Your task to perform on an android device: change timer sound Image 0: 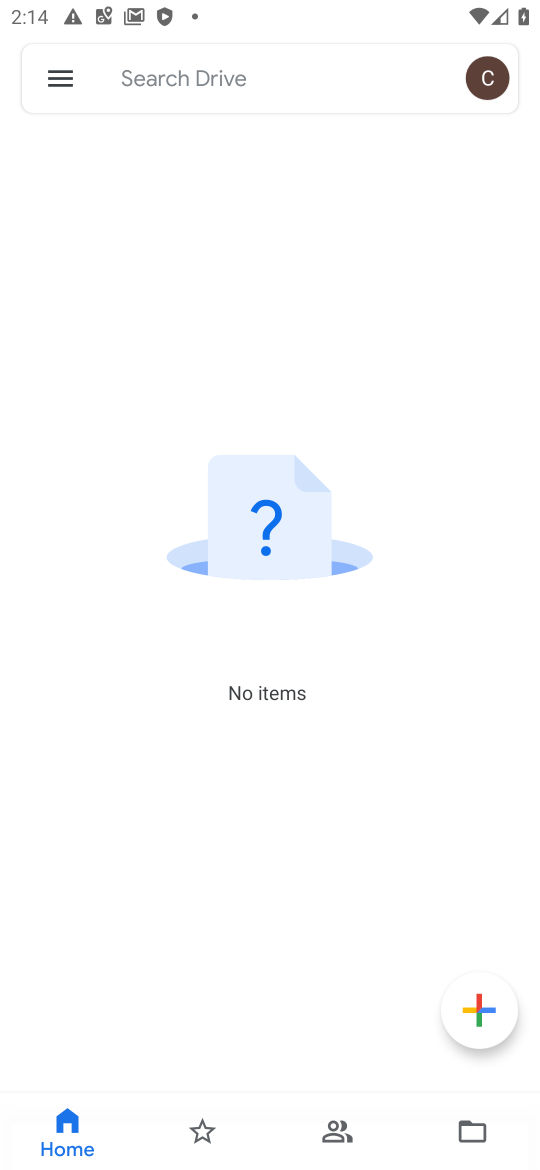
Step 0: press home button
Your task to perform on an android device: change timer sound Image 1: 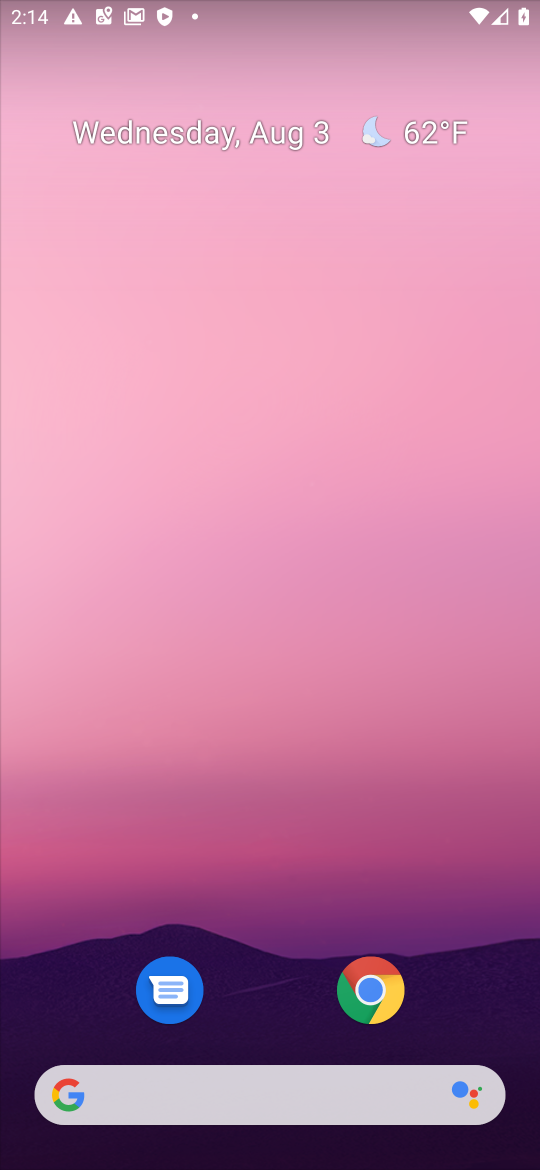
Step 1: drag from (210, 664) to (210, 492)
Your task to perform on an android device: change timer sound Image 2: 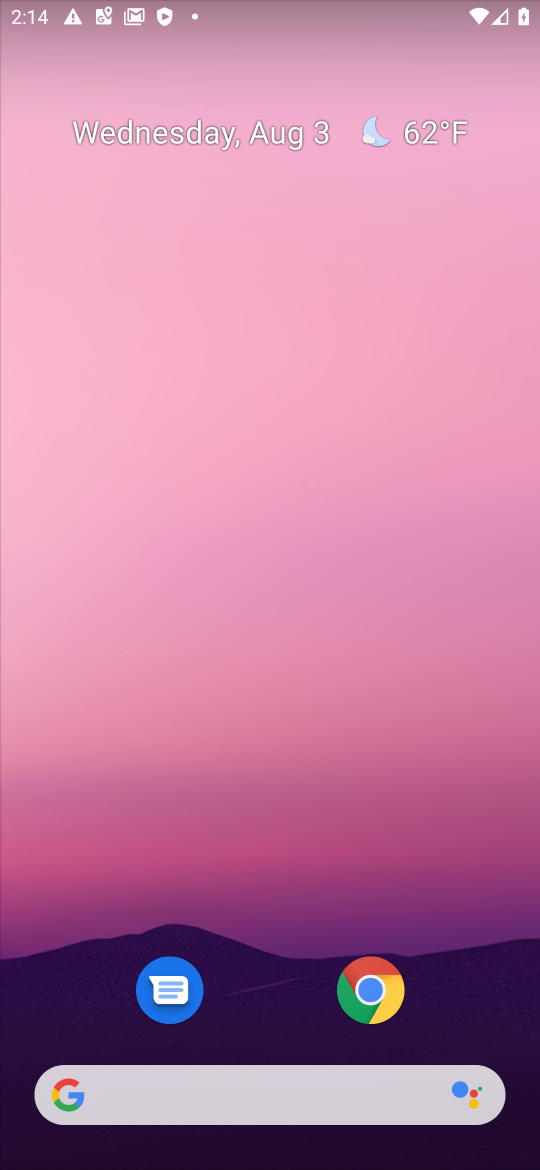
Step 2: drag from (296, 1063) to (297, 224)
Your task to perform on an android device: change timer sound Image 3: 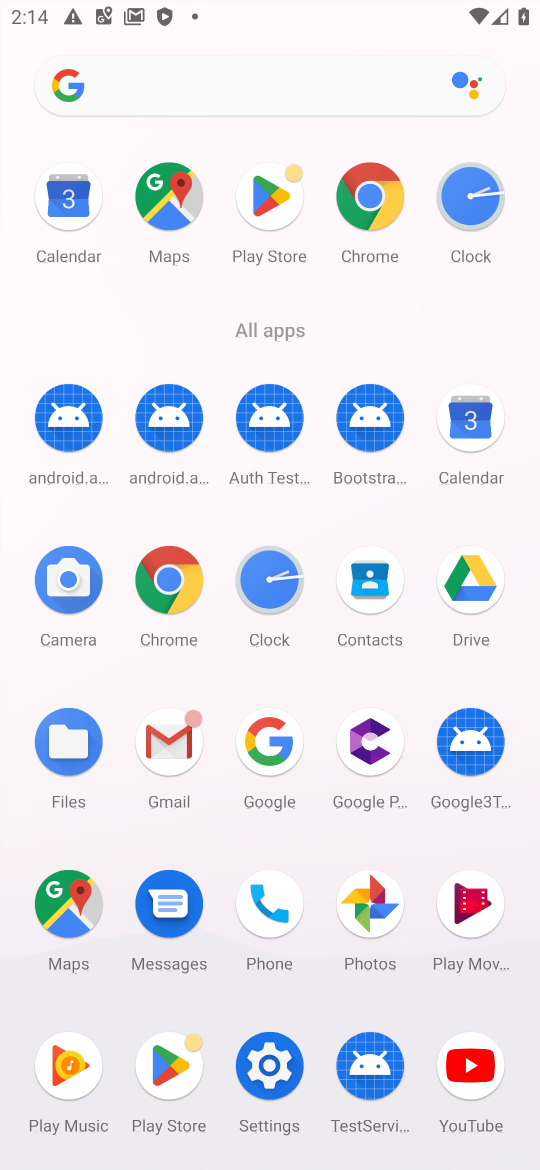
Step 3: click (471, 186)
Your task to perform on an android device: change timer sound Image 4: 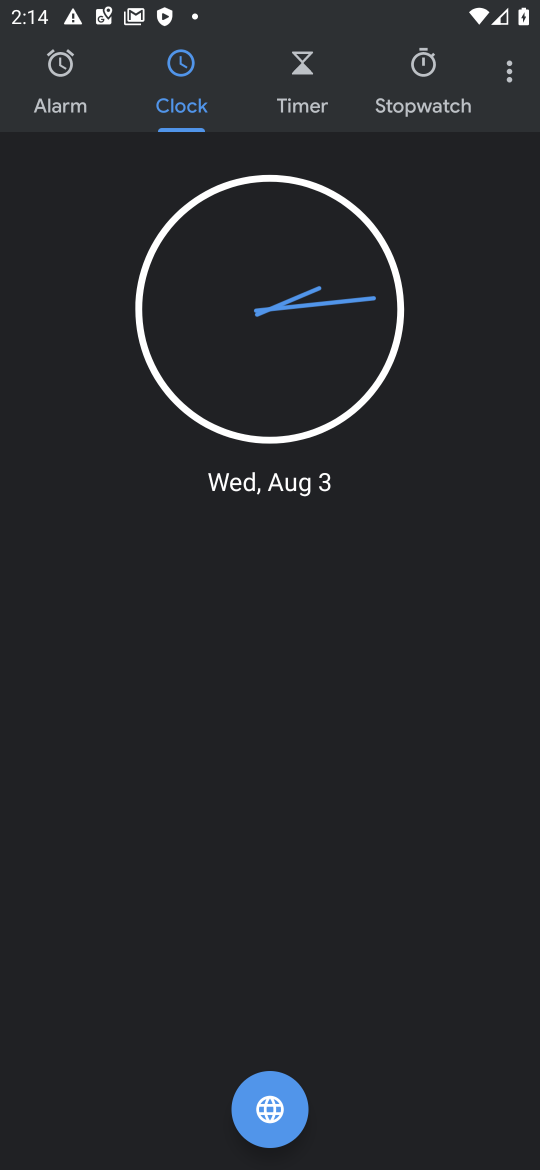
Step 4: click (503, 76)
Your task to perform on an android device: change timer sound Image 5: 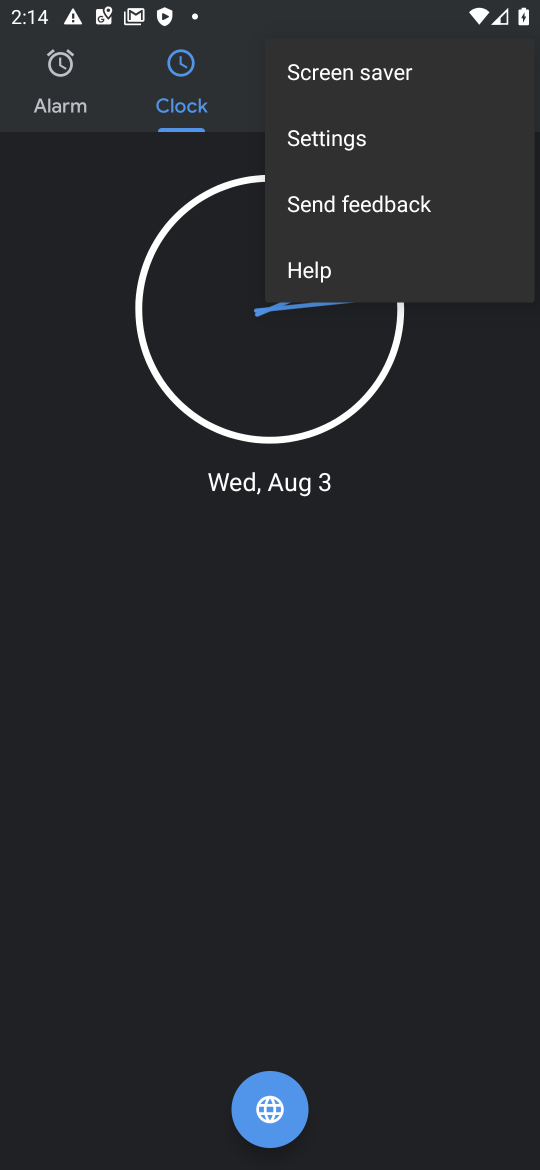
Step 5: click (328, 150)
Your task to perform on an android device: change timer sound Image 6: 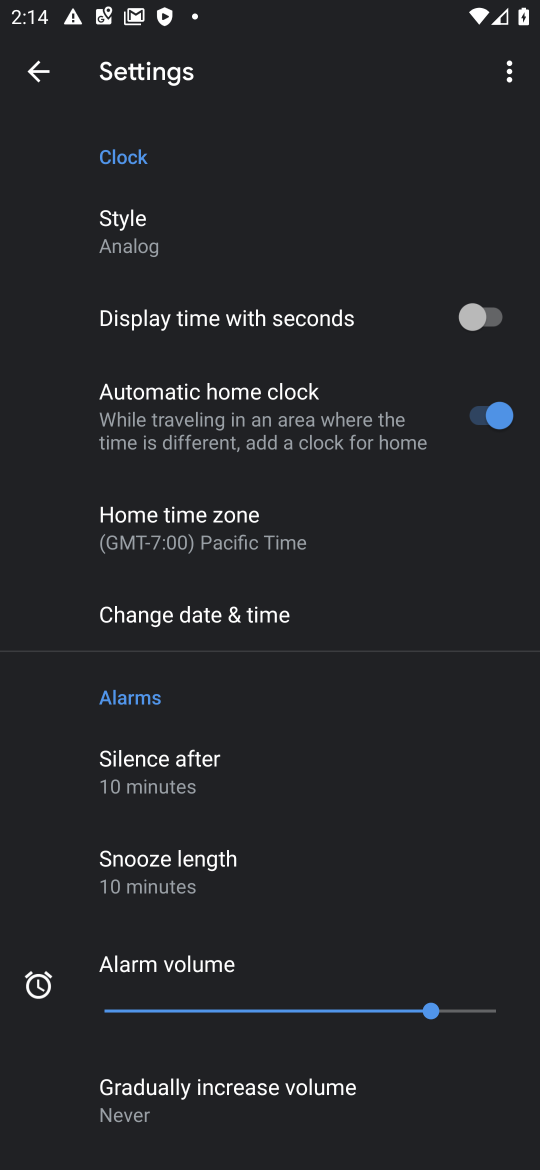
Step 6: drag from (209, 1052) to (191, 560)
Your task to perform on an android device: change timer sound Image 7: 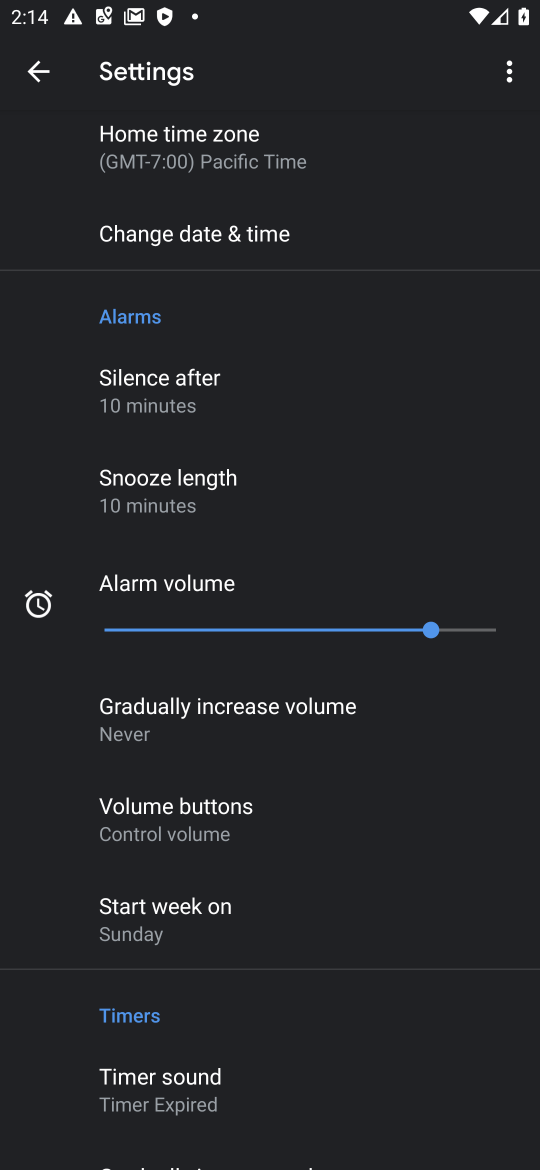
Step 7: drag from (179, 1080) to (174, 639)
Your task to perform on an android device: change timer sound Image 8: 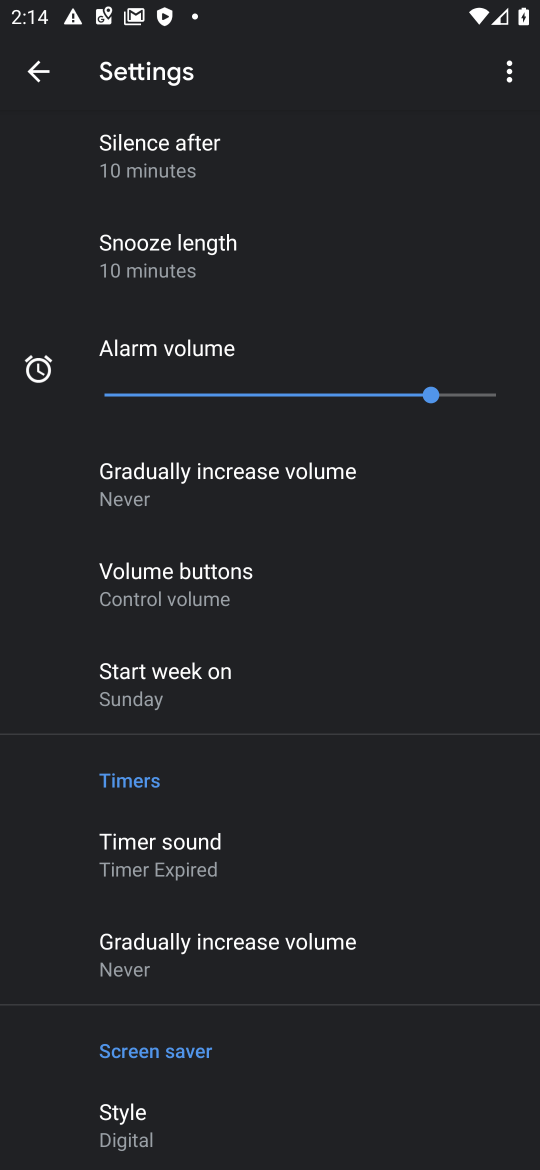
Step 8: click (112, 858)
Your task to perform on an android device: change timer sound Image 9: 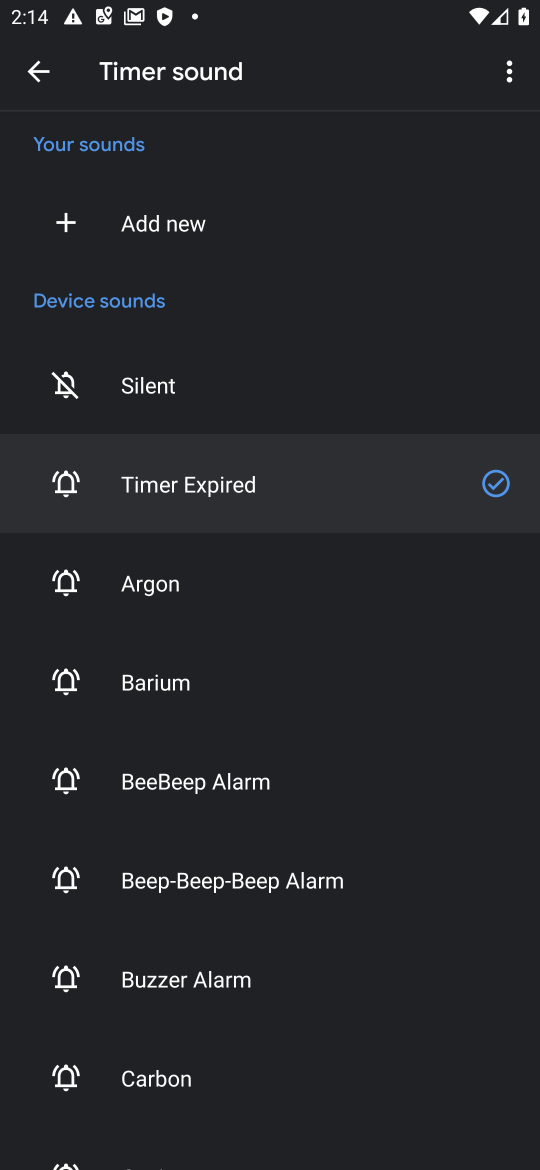
Step 9: click (168, 679)
Your task to perform on an android device: change timer sound Image 10: 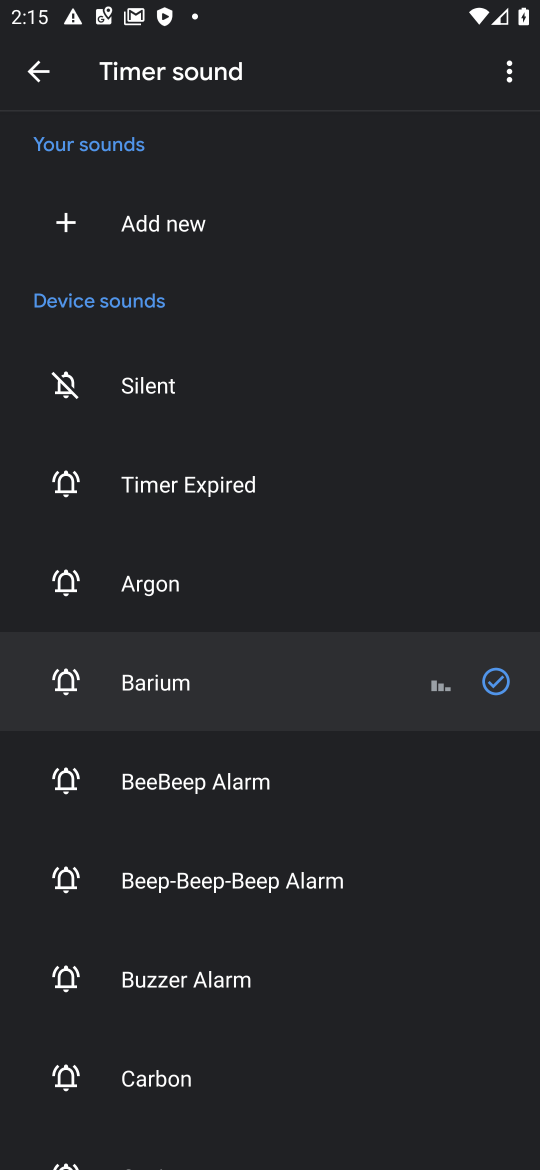
Step 10: task complete